Your task to perform on an android device: Add corsair k70 to the cart on bestbuy.com Image 0: 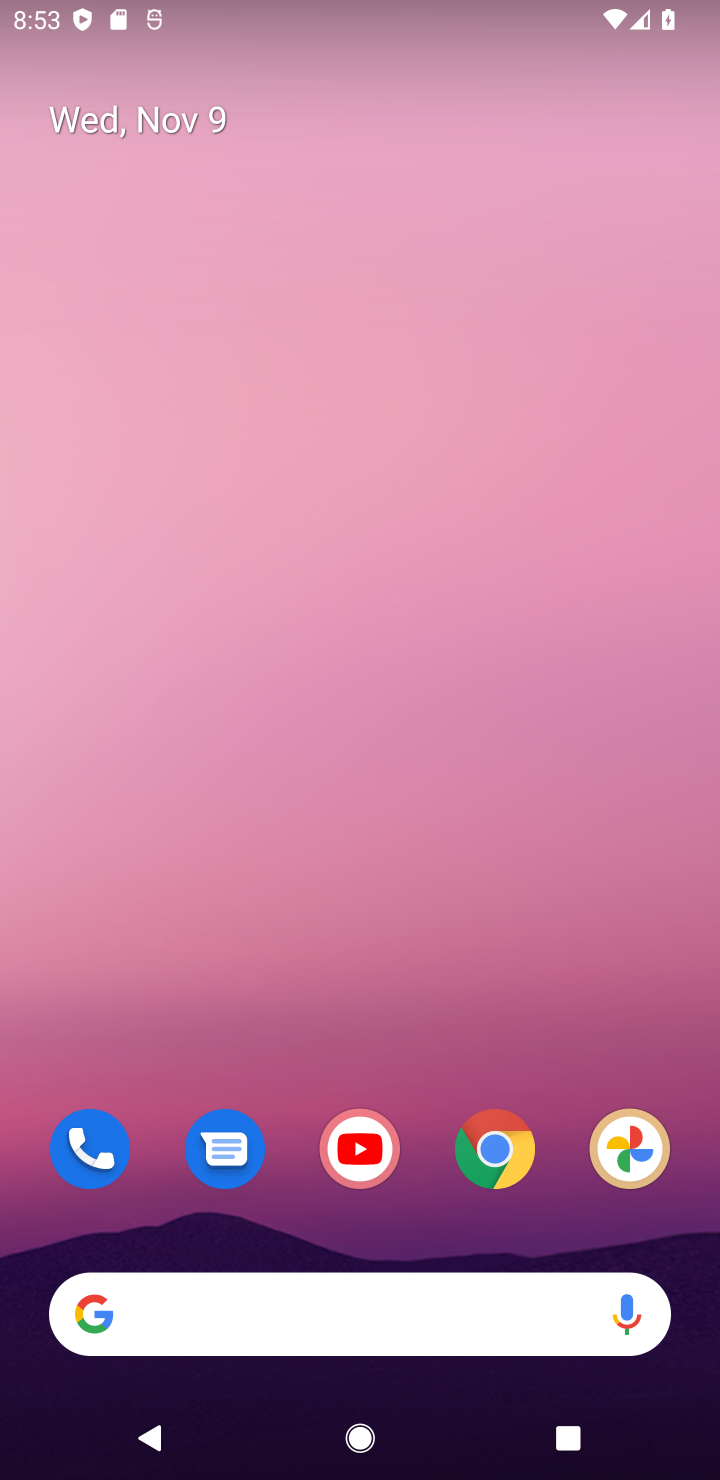
Step 0: click (500, 1137)
Your task to perform on an android device: Add corsair k70 to the cart on bestbuy.com Image 1: 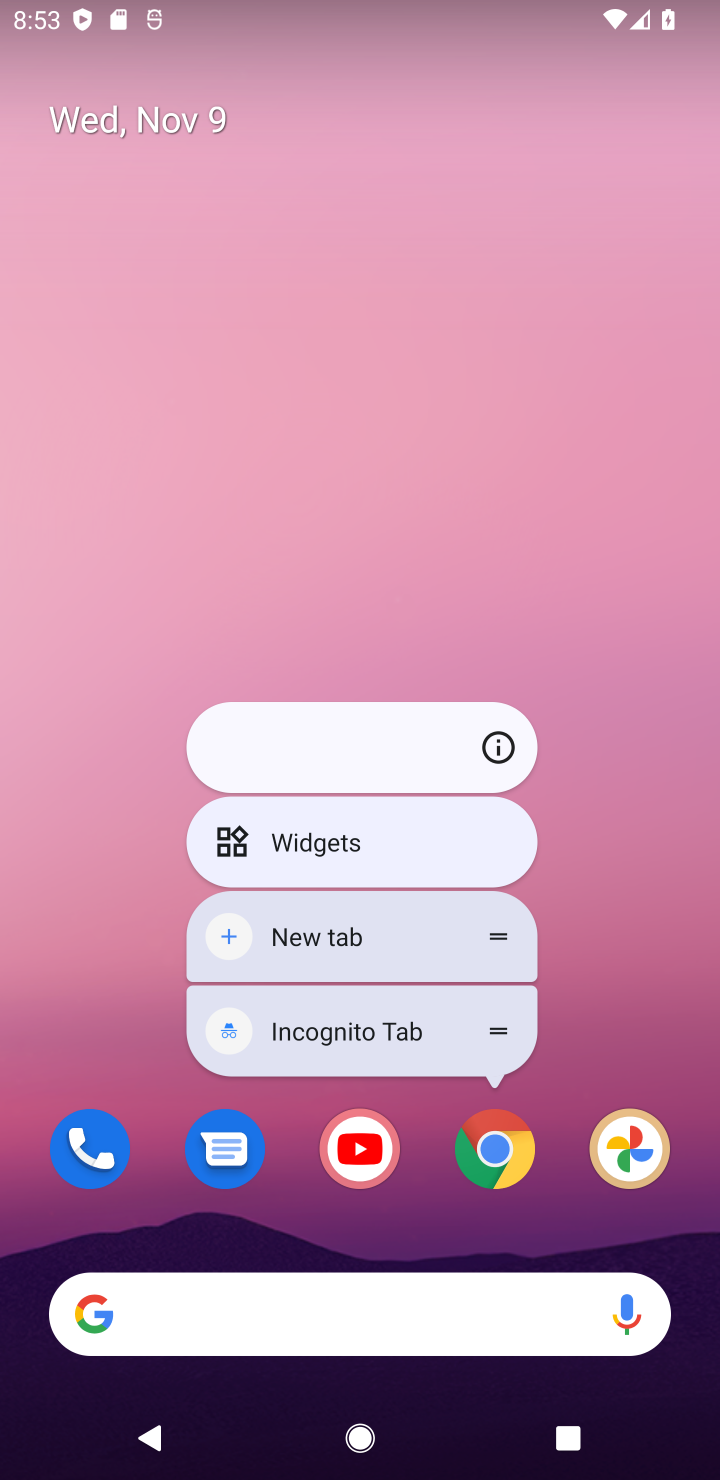
Step 1: click (500, 1137)
Your task to perform on an android device: Add corsair k70 to the cart on bestbuy.com Image 2: 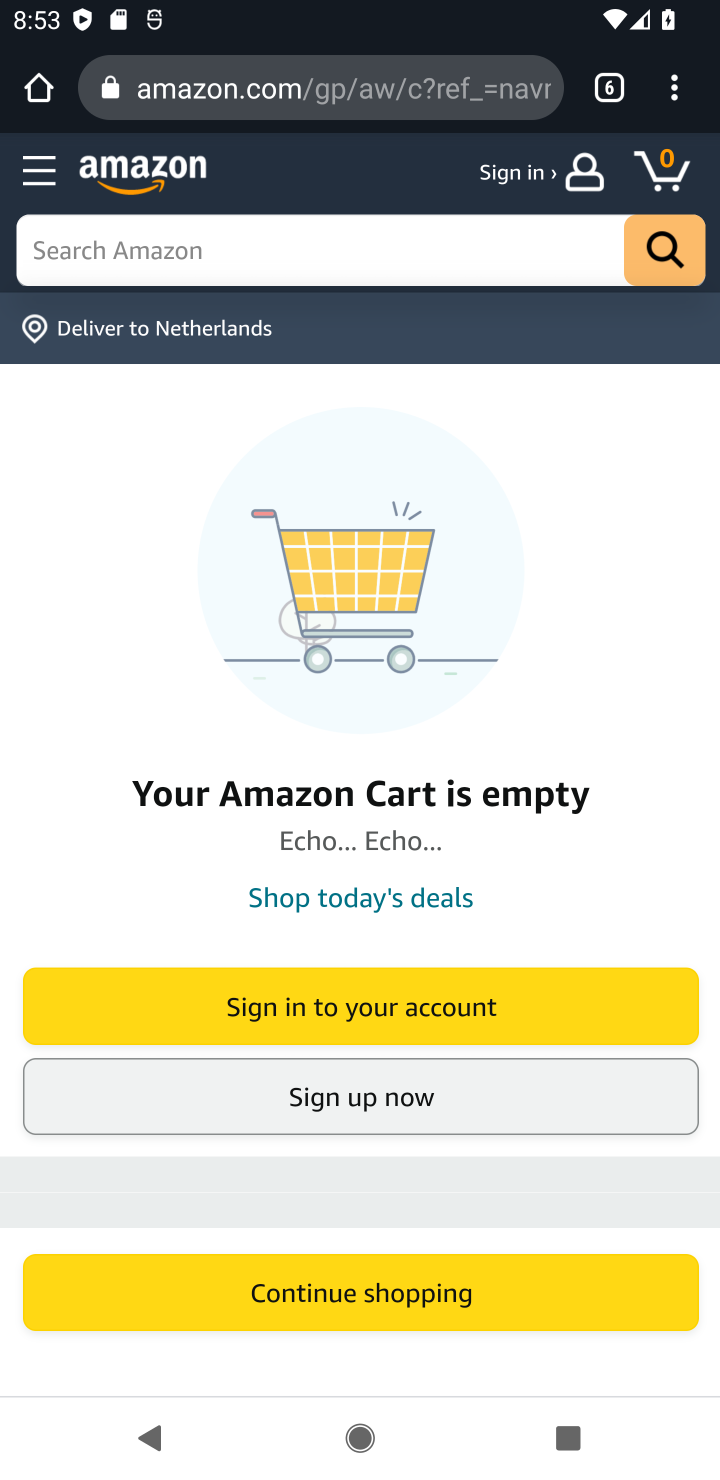
Step 2: click (602, 87)
Your task to perform on an android device: Add corsair k70 to the cart on bestbuy.com Image 3: 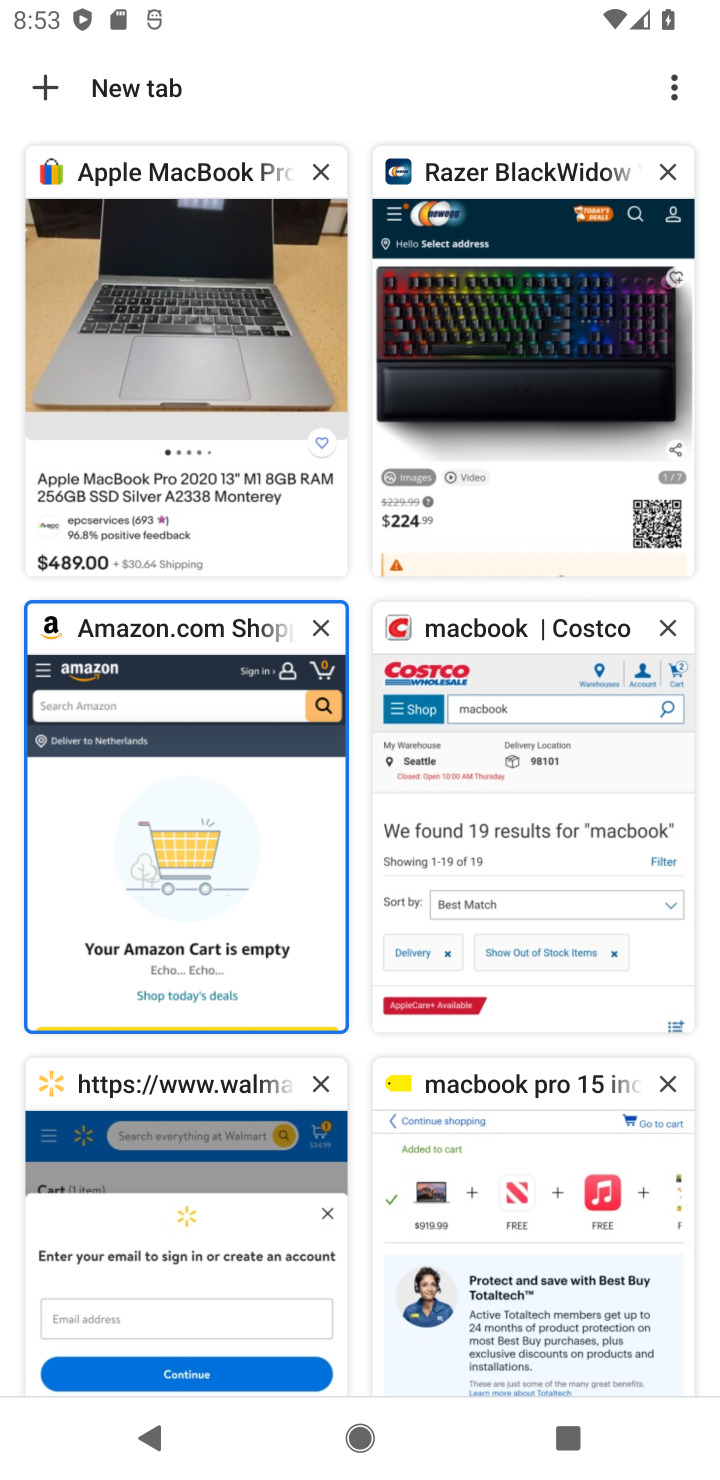
Step 3: click (421, 1152)
Your task to perform on an android device: Add corsair k70 to the cart on bestbuy.com Image 4: 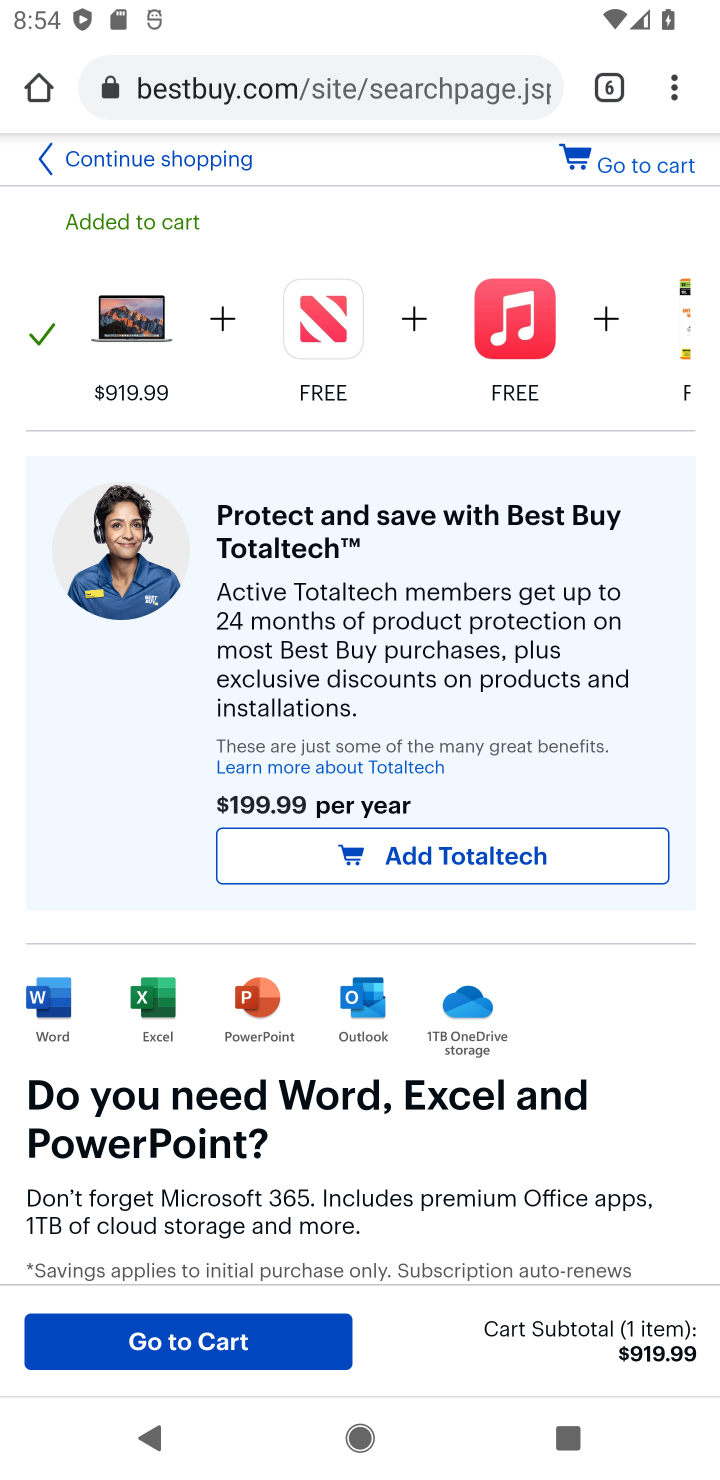
Step 4: click (231, 1325)
Your task to perform on an android device: Add corsair k70 to the cart on bestbuy.com Image 5: 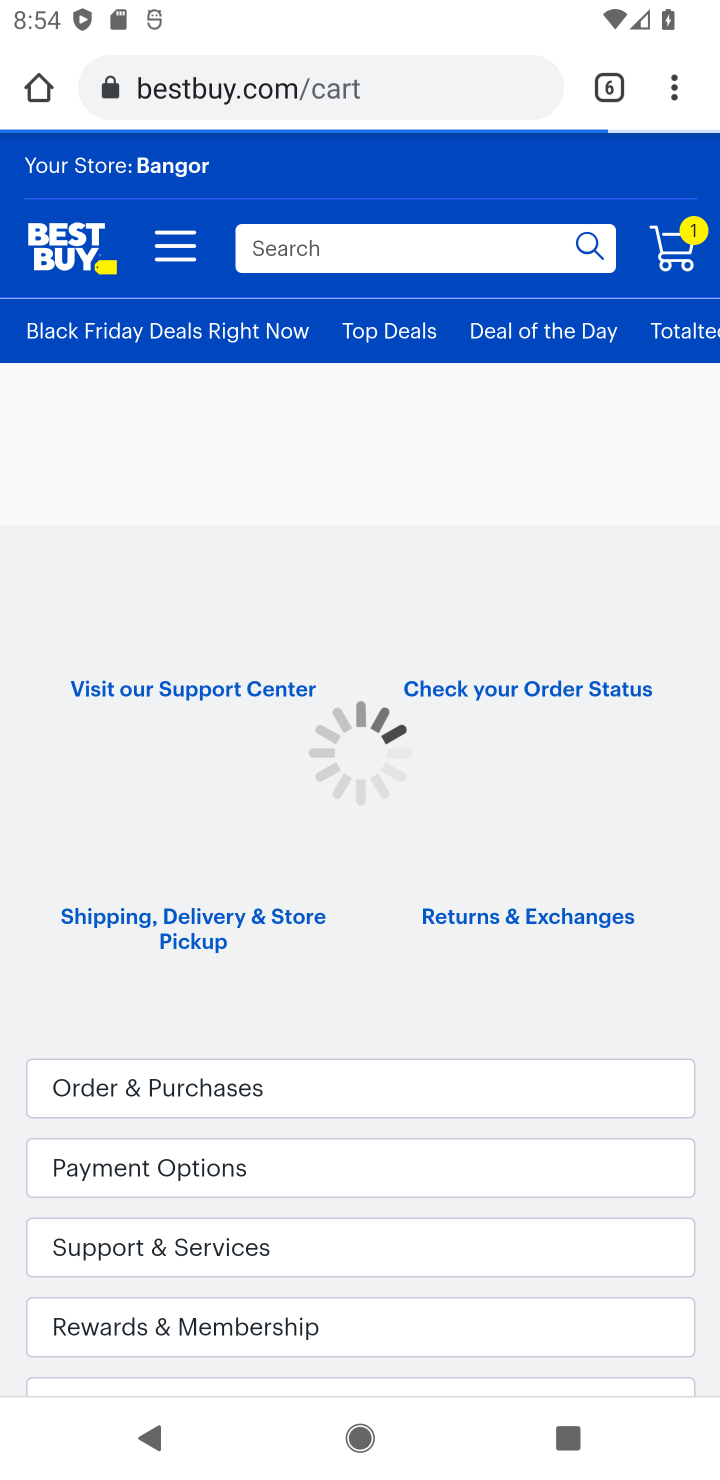
Step 5: click (371, 247)
Your task to perform on an android device: Add corsair k70 to the cart on bestbuy.com Image 6: 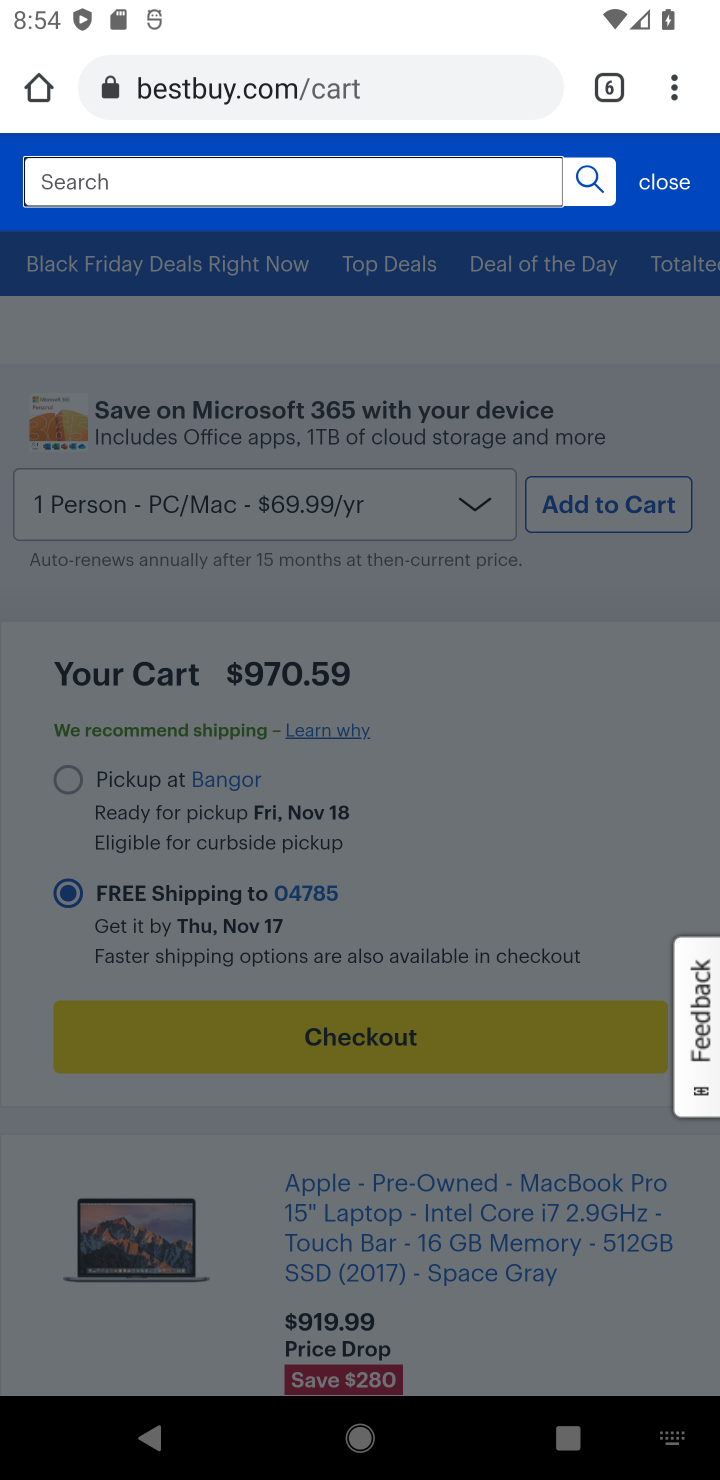
Step 6: press enter
Your task to perform on an android device: Add corsair k70 to the cart on bestbuy.com Image 7: 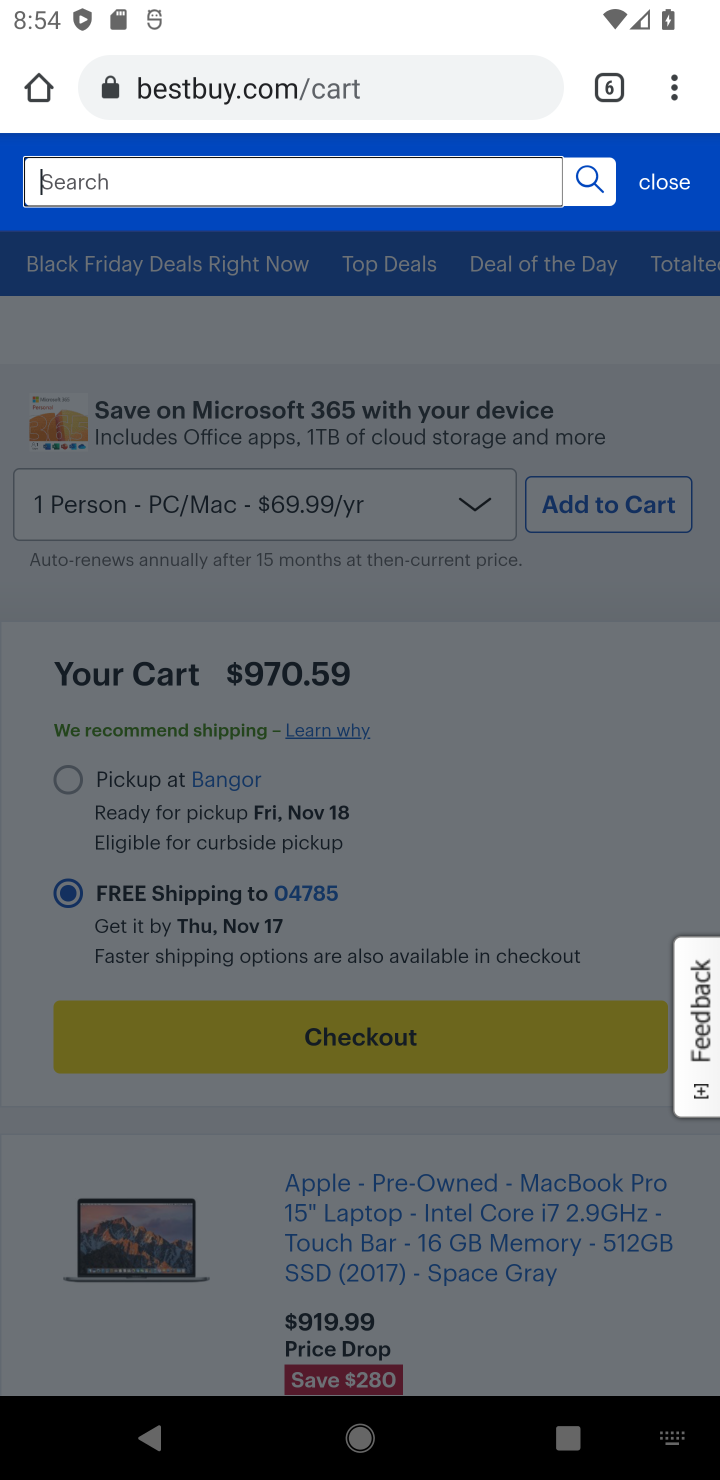
Step 7: type "corsair k70 "
Your task to perform on an android device: Add corsair k70 to the cart on bestbuy.com Image 8: 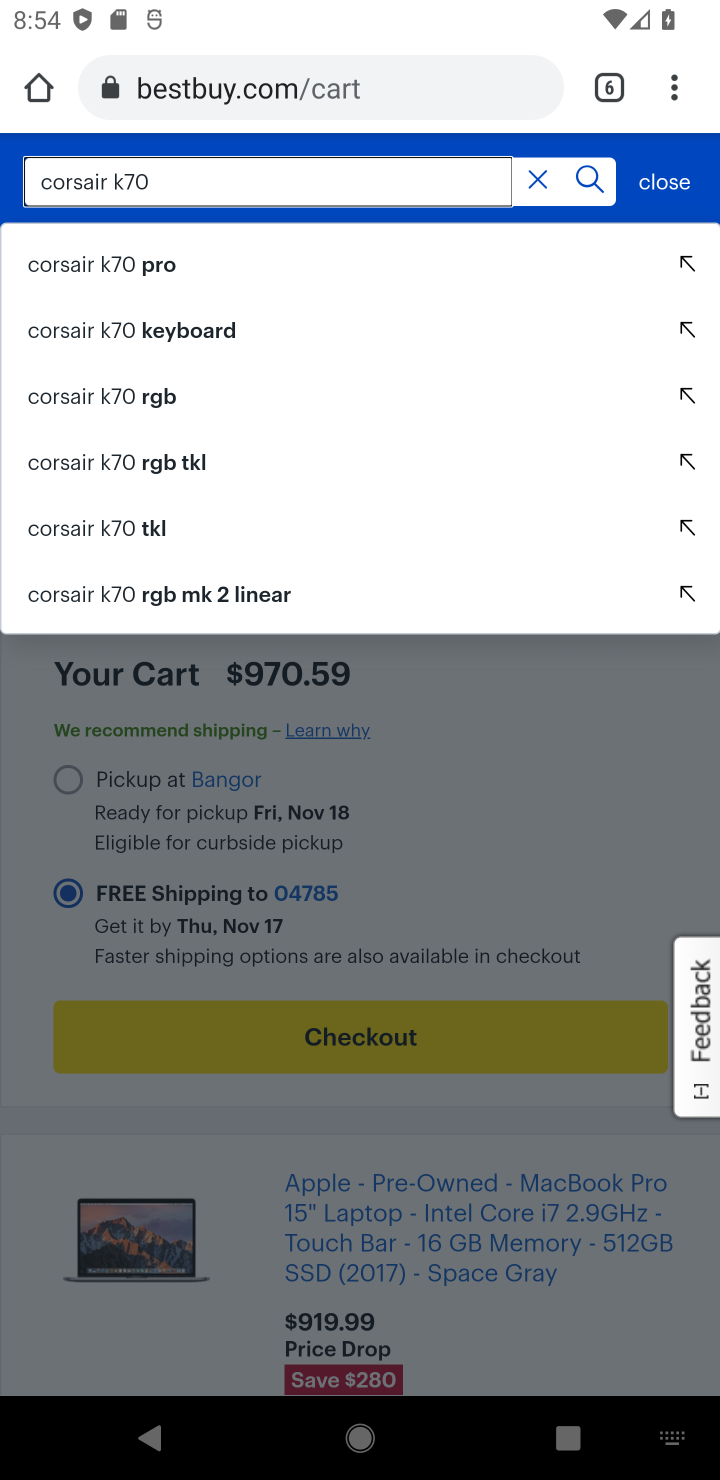
Step 8: click (99, 249)
Your task to perform on an android device: Add corsair k70 to the cart on bestbuy.com Image 9: 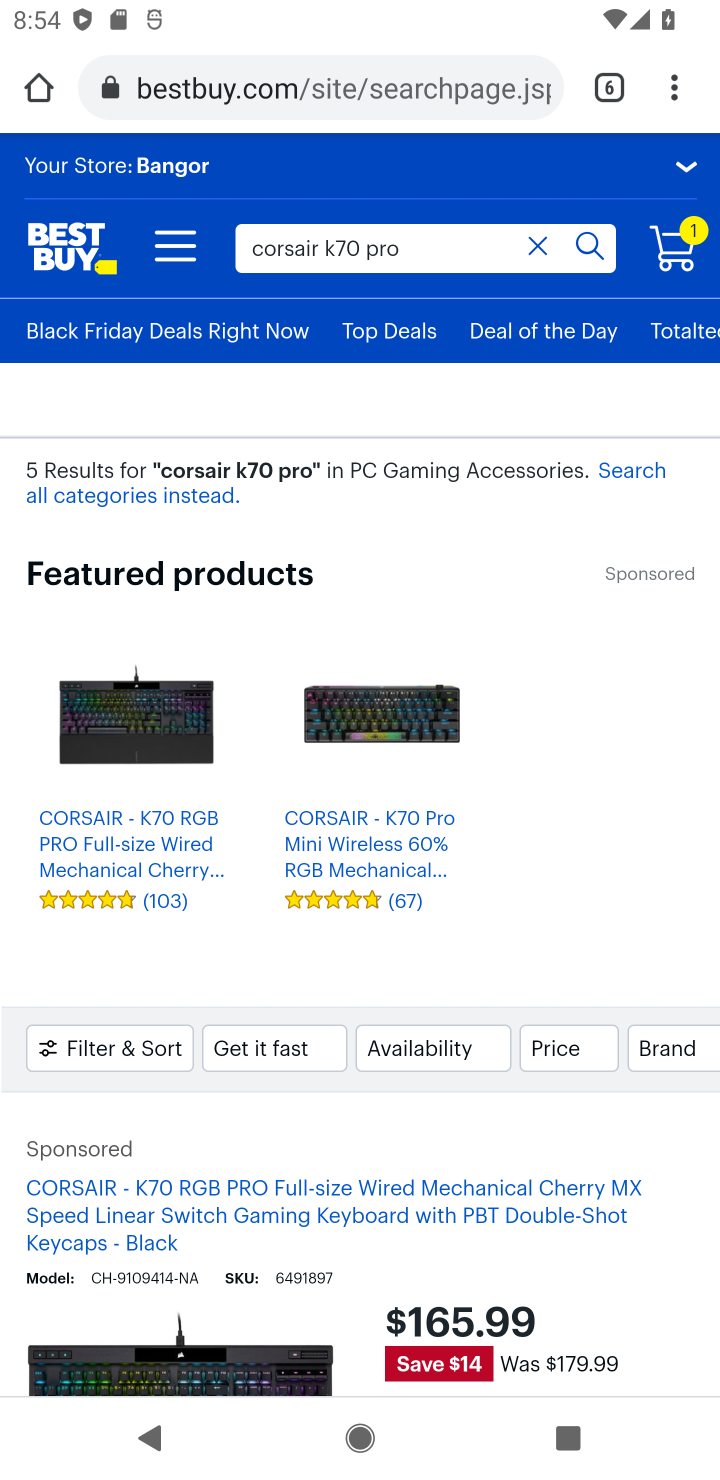
Step 9: drag from (588, 1237) to (685, 350)
Your task to perform on an android device: Add corsair k70 to the cart on bestbuy.com Image 10: 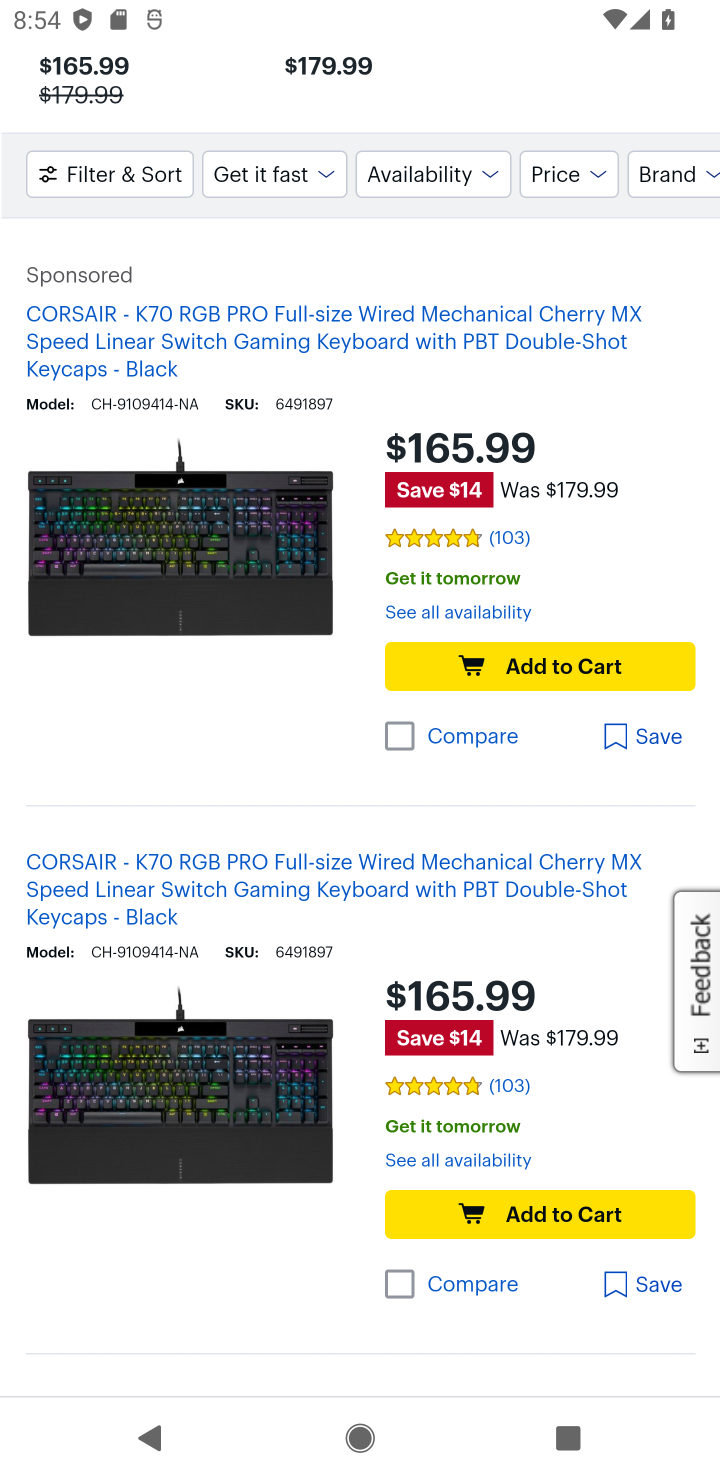
Step 10: click (562, 680)
Your task to perform on an android device: Add corsair k70 to the cart on bestbuy.com Image 11: 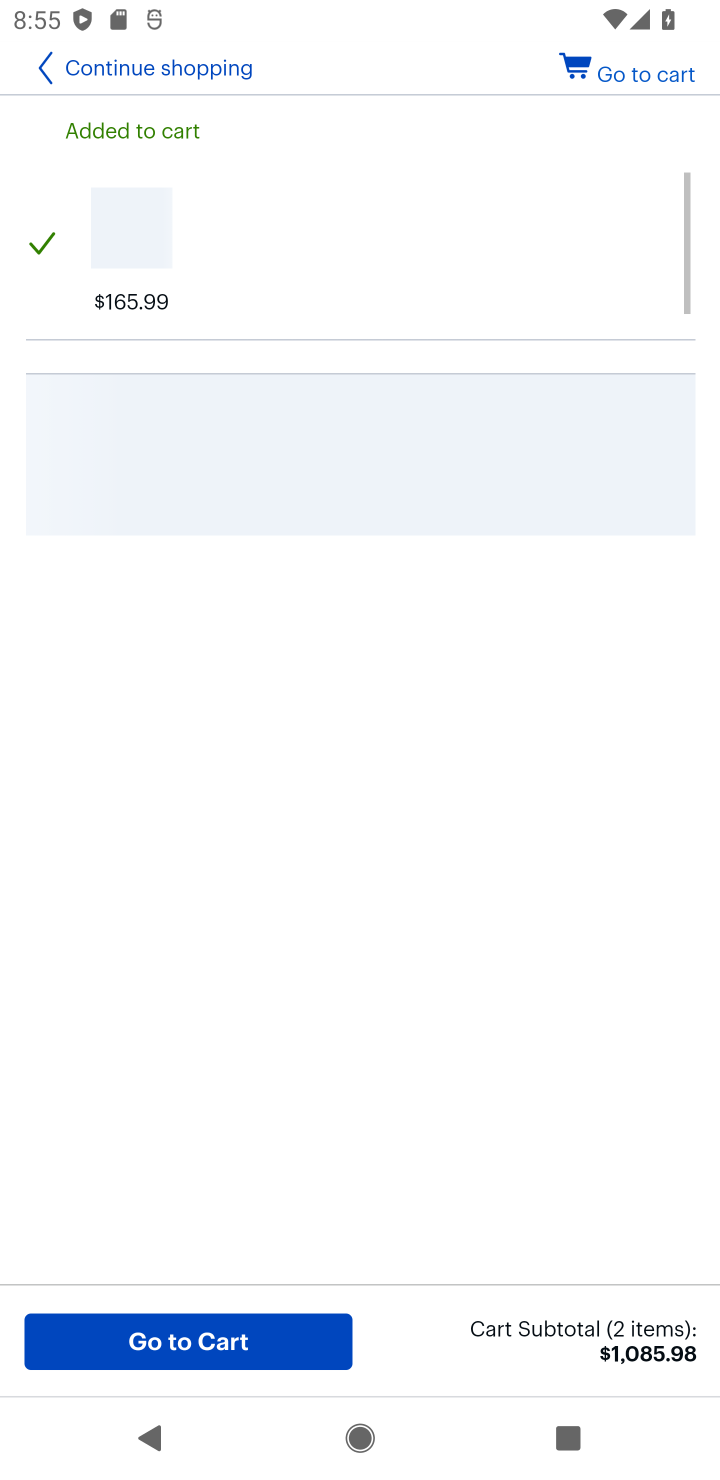
Step 11: task complete